Your task to perform on an android device: Open Google Maps and go to "Timeline" Image 0: 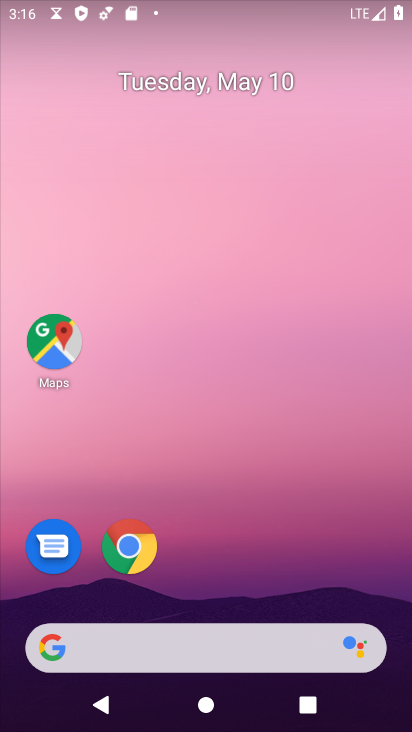
Step 0: drag from (229, 591) to (225, 75)
Your task to perform on an android device: Open Google Maps and go to "Timeline" Image 1: 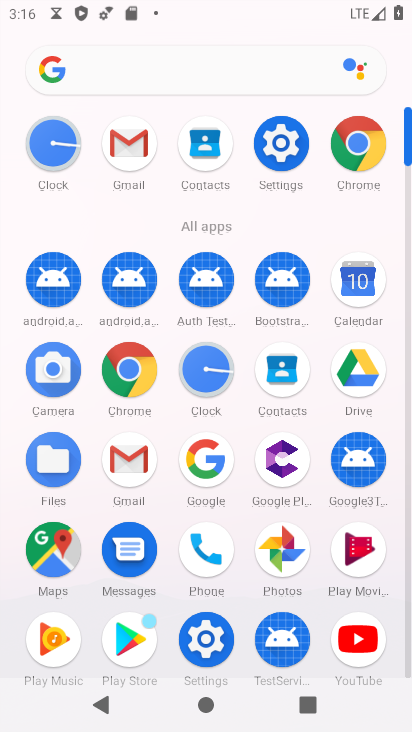
Step 1: click (65, 560)
Your task to perform on an android device: Open Google Maps and go to "Timeline" Image 2: 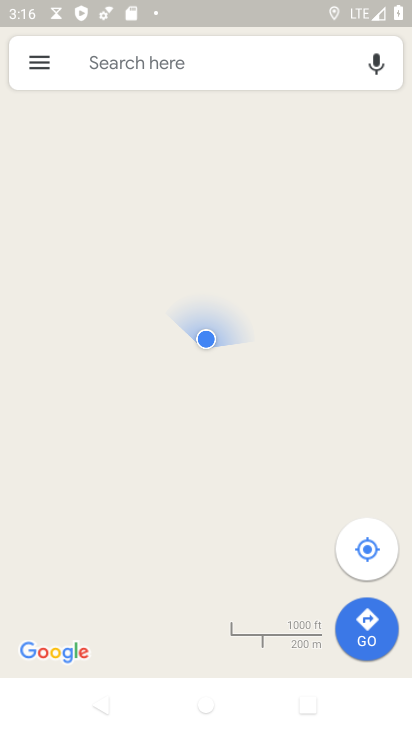
Step 2: click (51, 63)
Your task to perform on an android device: Open Google Maps and go to "Timeline" Image 3: 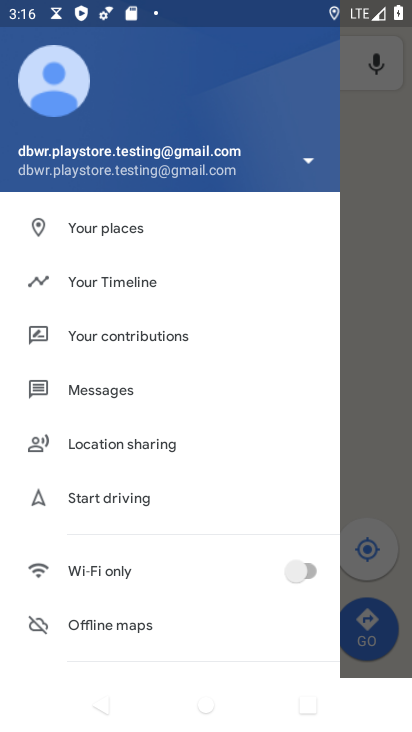
Step 3: click (78, 285)
Your task to perform on an android device: Open Google Maps and go to "Timeline" Image 4: 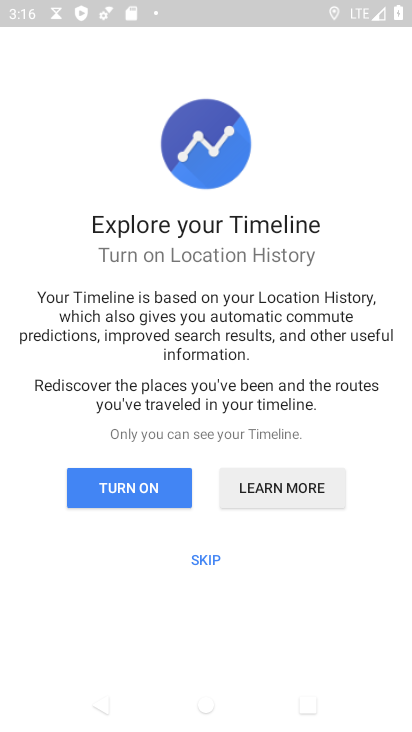
Step 4: click (213, 556)
Your task to perform on an android device: Open Google Maps and go to "Timeline" Image 5: 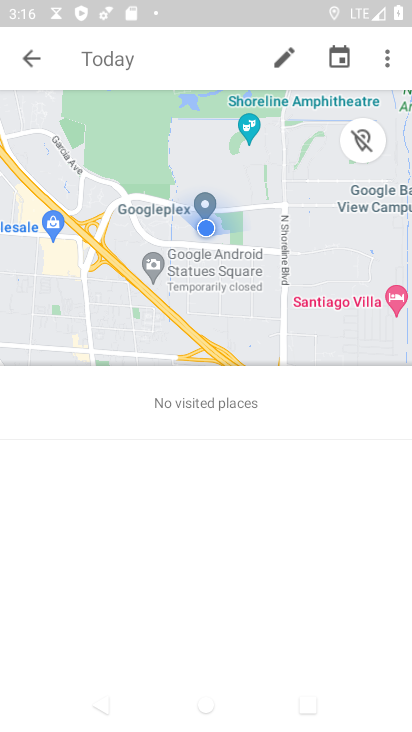
Step 5: task complete